Your task to perform on an android device: toggle priority inbox in the gmail app Image 0: 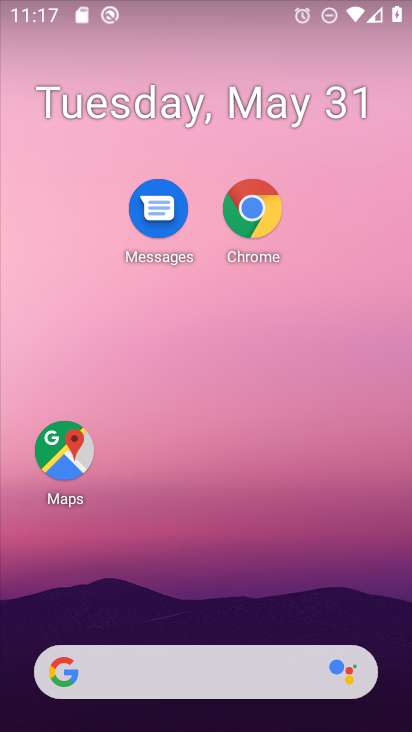
Step 0: drag from (251, 617) to (271, 35)
Your task to perform on an android device: toggle priority inbox in the gmail app Image 1: 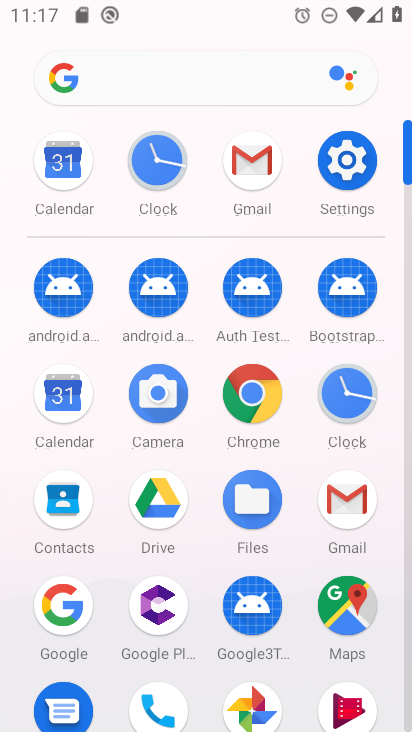
Step 1: click (346, 492)
Your task to perform on an android device: toggle priority inbox in the gmail app Image 2: 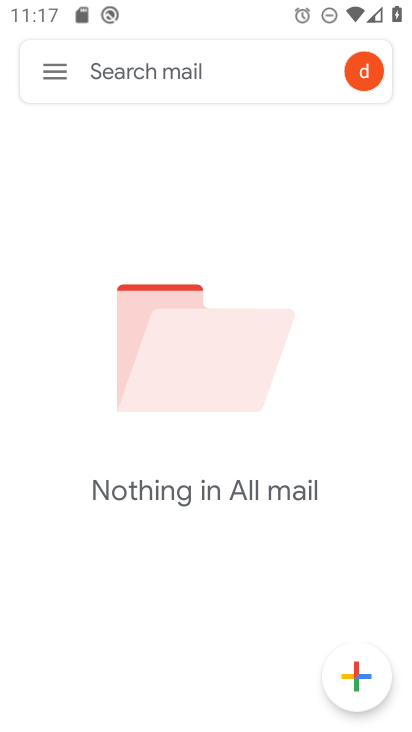
Step 2: click (52, 64)
Your task to perform on an android device: toggle priority inbox in the gmail app Image 3: 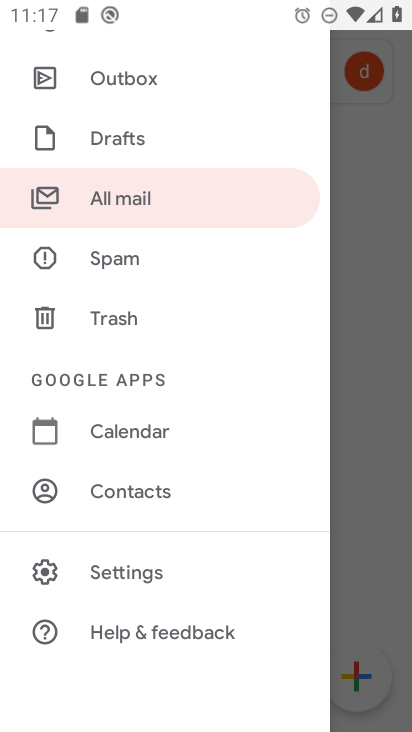
Step 3: click (146, 559)
Your task to perform on an android device: toggle priority inbox in the gmail app Image 4: 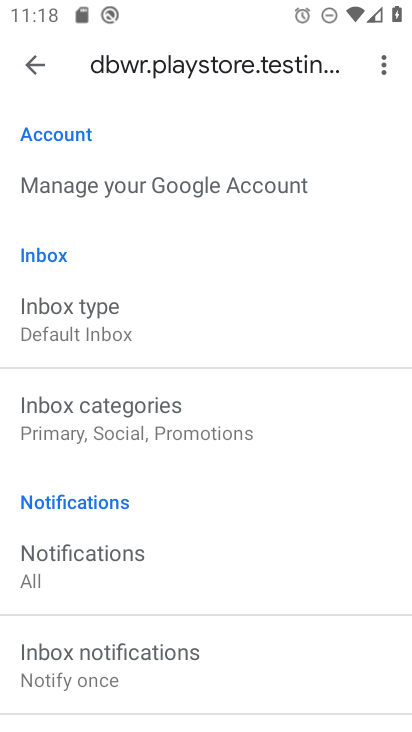
Step 4: click (140, 319)
Your task to perform on an android device: toggle priority inbox in the gmail app Image 5: 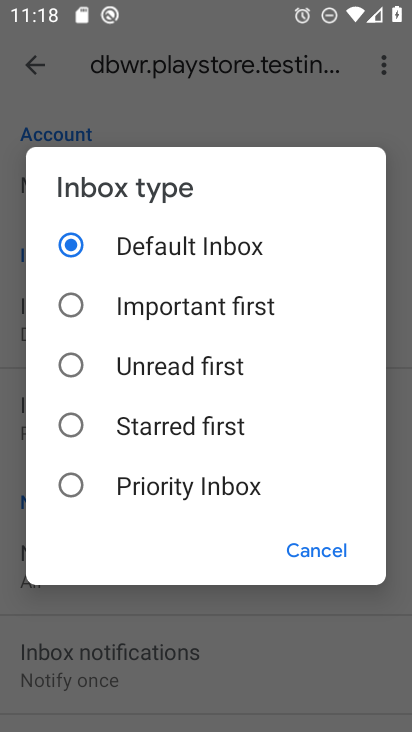
Step 5: click (76, 482)
Your task to perform on an android device: toggle priority inbox in the gmail app Image 6: 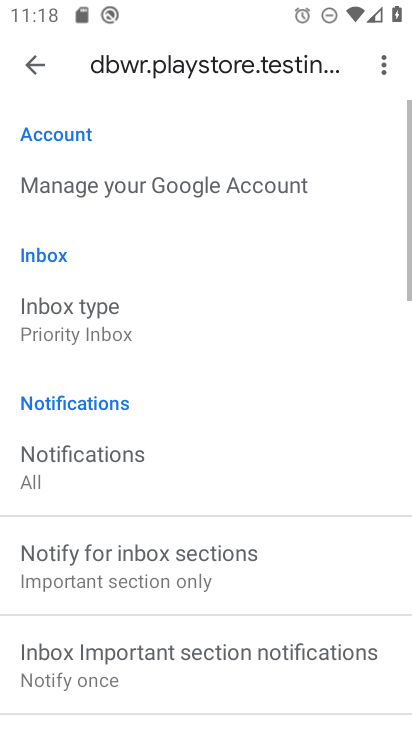
Step 6: task complete